Your task to perform on an android device: see tabs open on other devices in the chrome app Image 0: 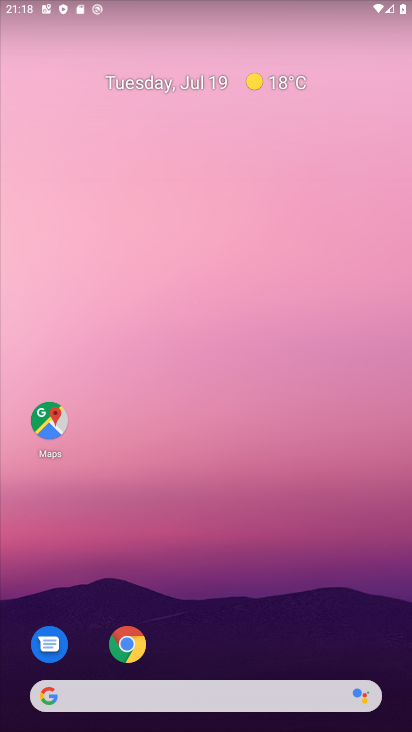
Step 0: drag from (216, 729) to (208, 159)
Your task to perform on an android device: see tabs open on other devices in the chrome app Image 1: 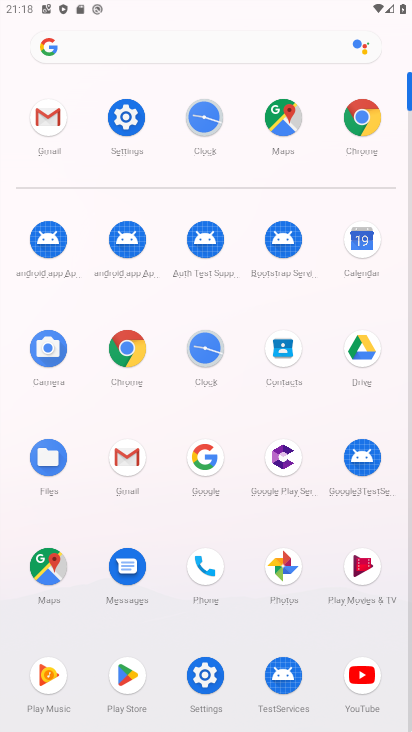
Step 1: click (128, 348)
Your task to perform on an android device: see tabs open on other devices in the chrome app Image 2: 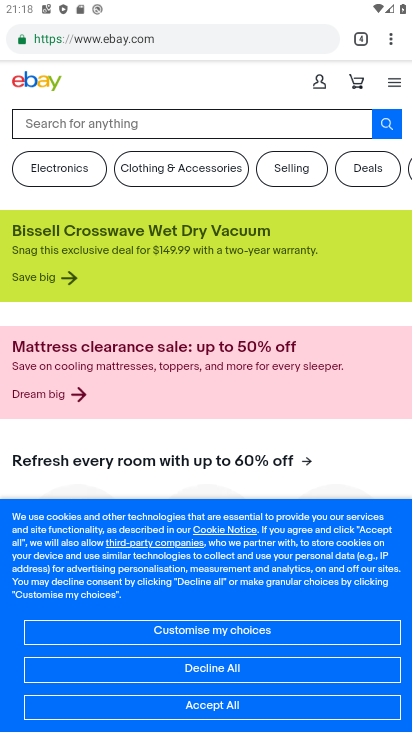
Step 2: click (393, 42)
Your task to perform on an android device: see tabs open on other devices in the chrome app Image 3: 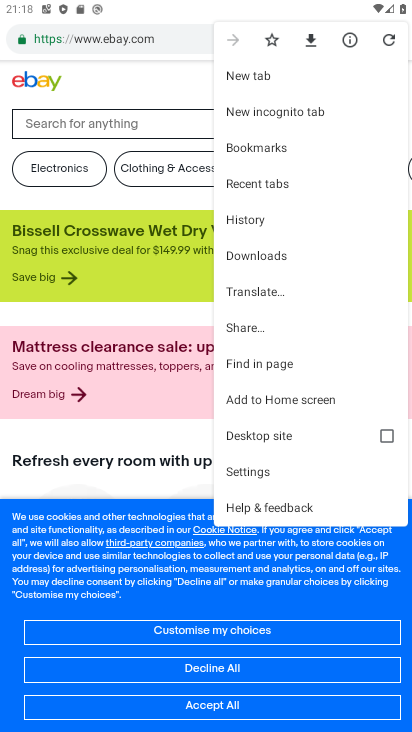
Step 3: click (259, 180)
Your task to perform on an android device: see tabs open on other devices in the chrome app Image 4: 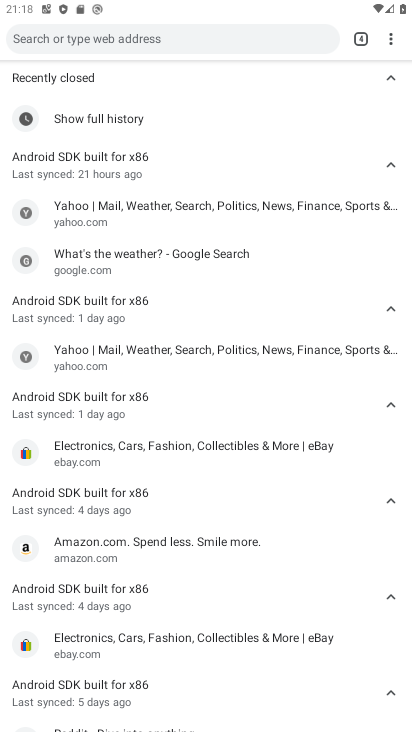
Step 4: click (389, 42)
Your task to perform on an android device: see tabs open on other devices in the chrome app Image 5: 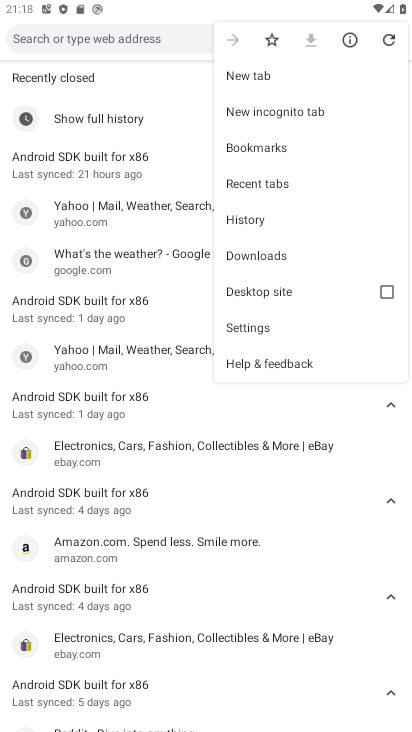
Step 5: click (237, 76)
Your task to perform on an android device: see tabs open on other devices in the chrome app Image 6: 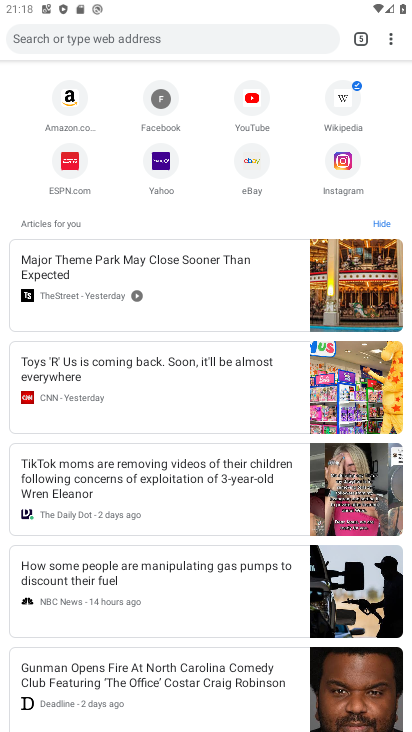
Step 6: click (392, 41)
Your task to perform on an android device: see tabs open on other devices in the chrome app Image 7: 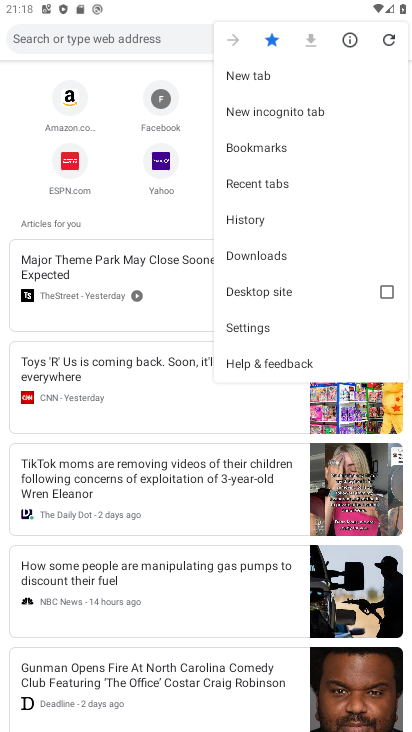
Step 7: click (265, 180)
Your task to perform on an android device: see tabs open on other devices in the chrome app Image 8: 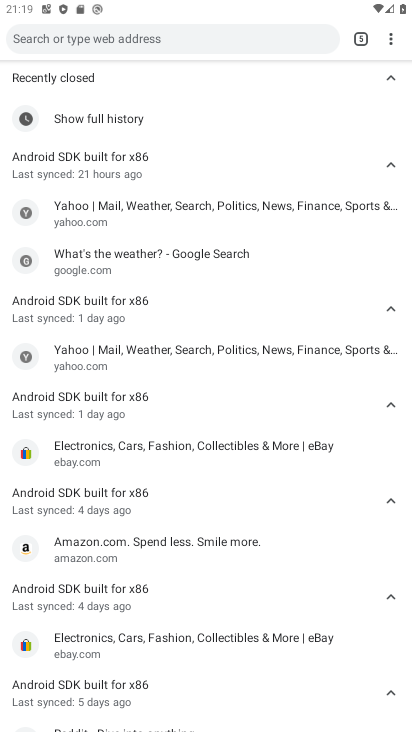
Step 8: task complete